Your task to perform on an android device: Clear all items from cart on amazon.com. Image 0: 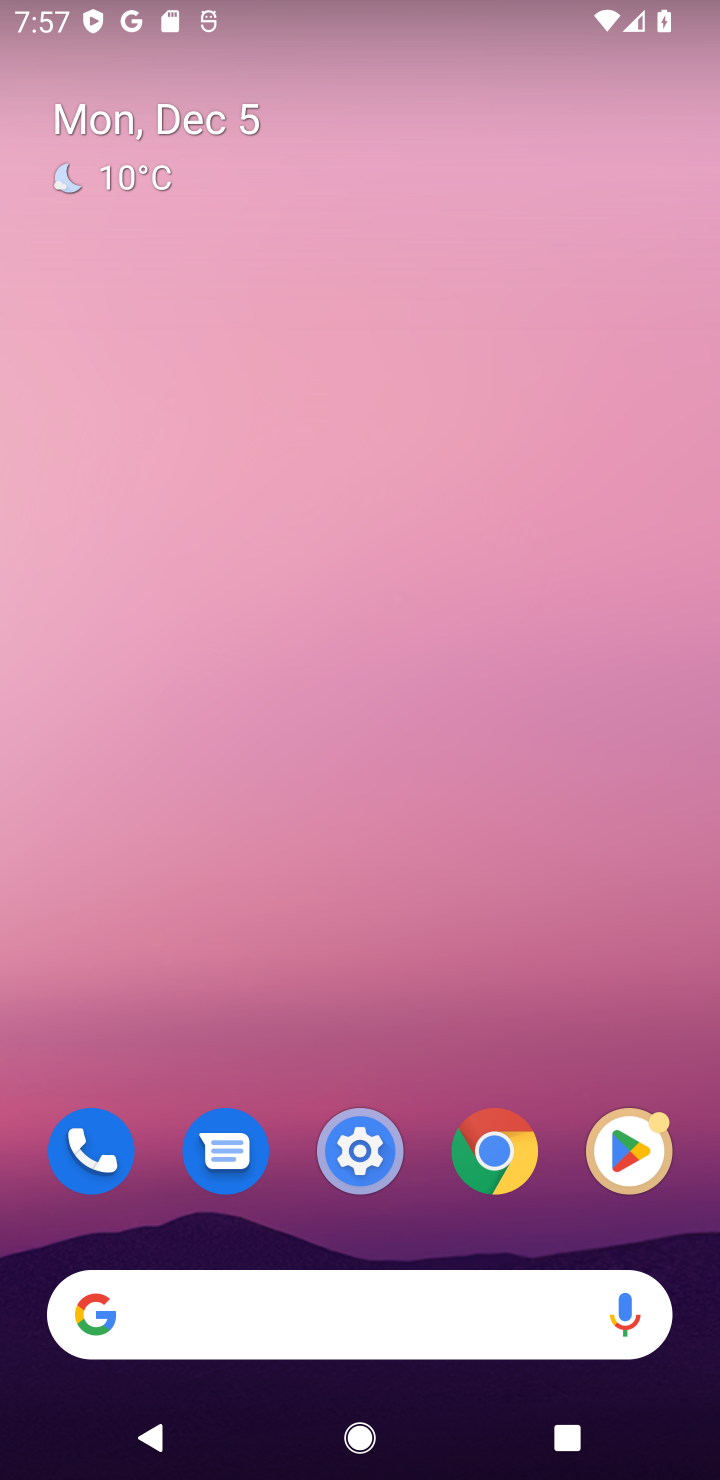
Step 0: click (413, 1303)
Your task to perform on an android device: Clear all items from cart on amazon.com. Image 1: 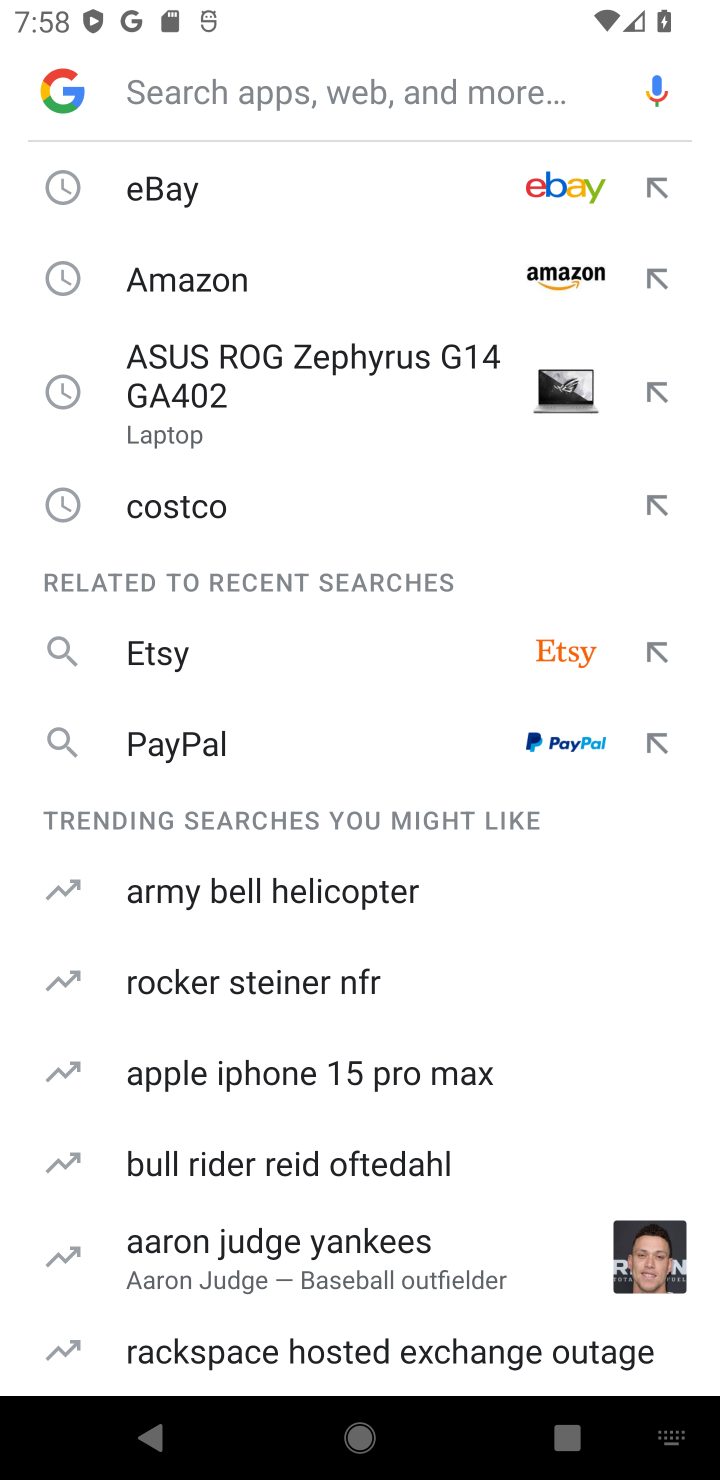
Step 1: type "amazon"
Your task to perform on an android device: Clear all items from cart on amazon.com. Image 2: 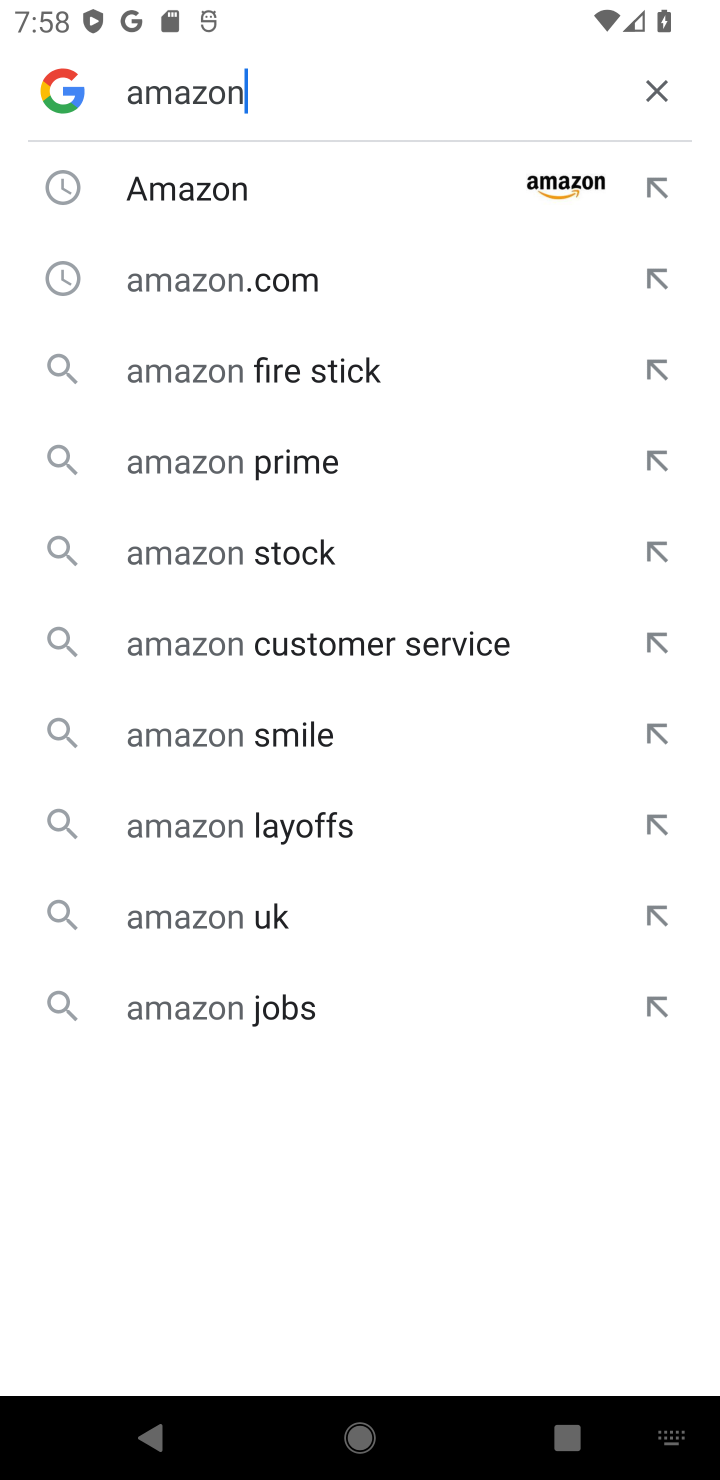
Step 2: click (193, 199)
Your task to perform on an android device: Clear all items from cart on amazon.com. Image 3: 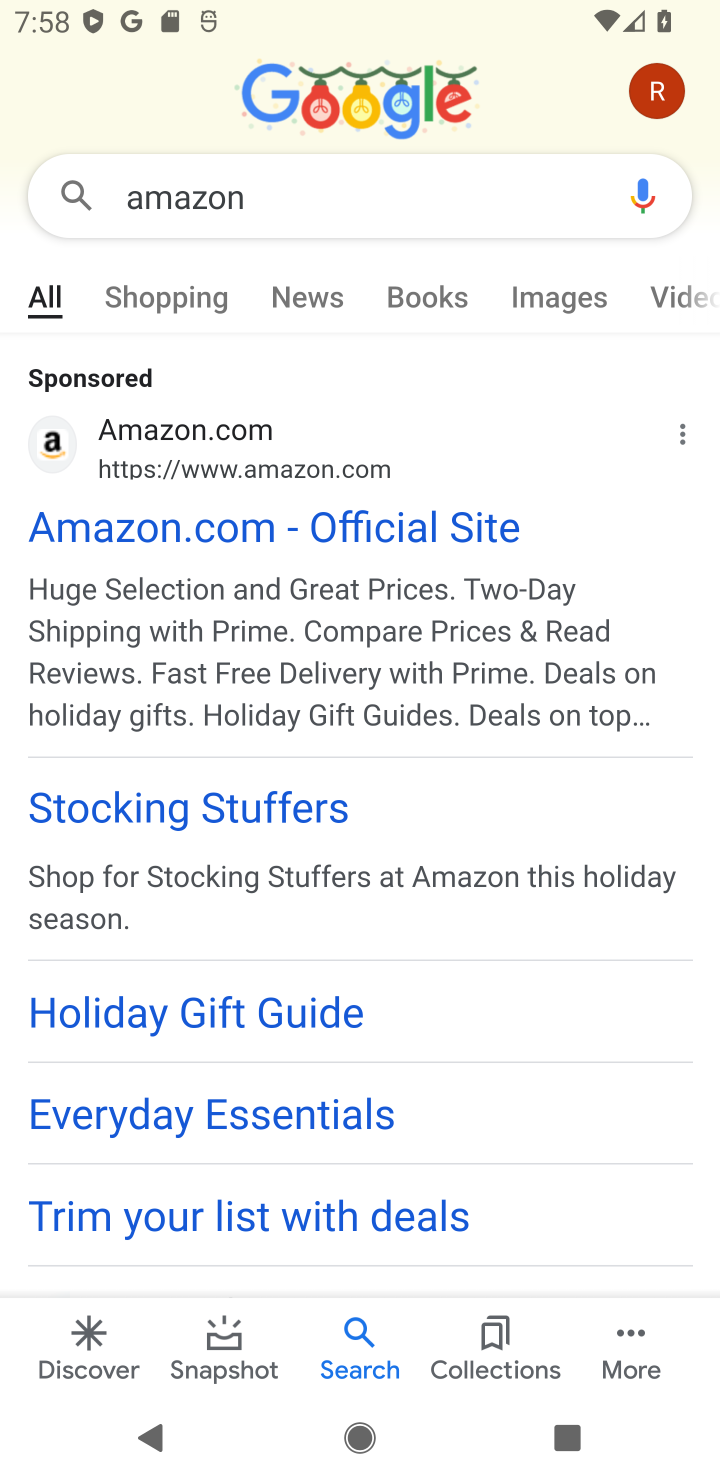
Step 3: click (105, 531)
Your task to perform on an android device: Clear all items from cart on amazon.com. Image 4: 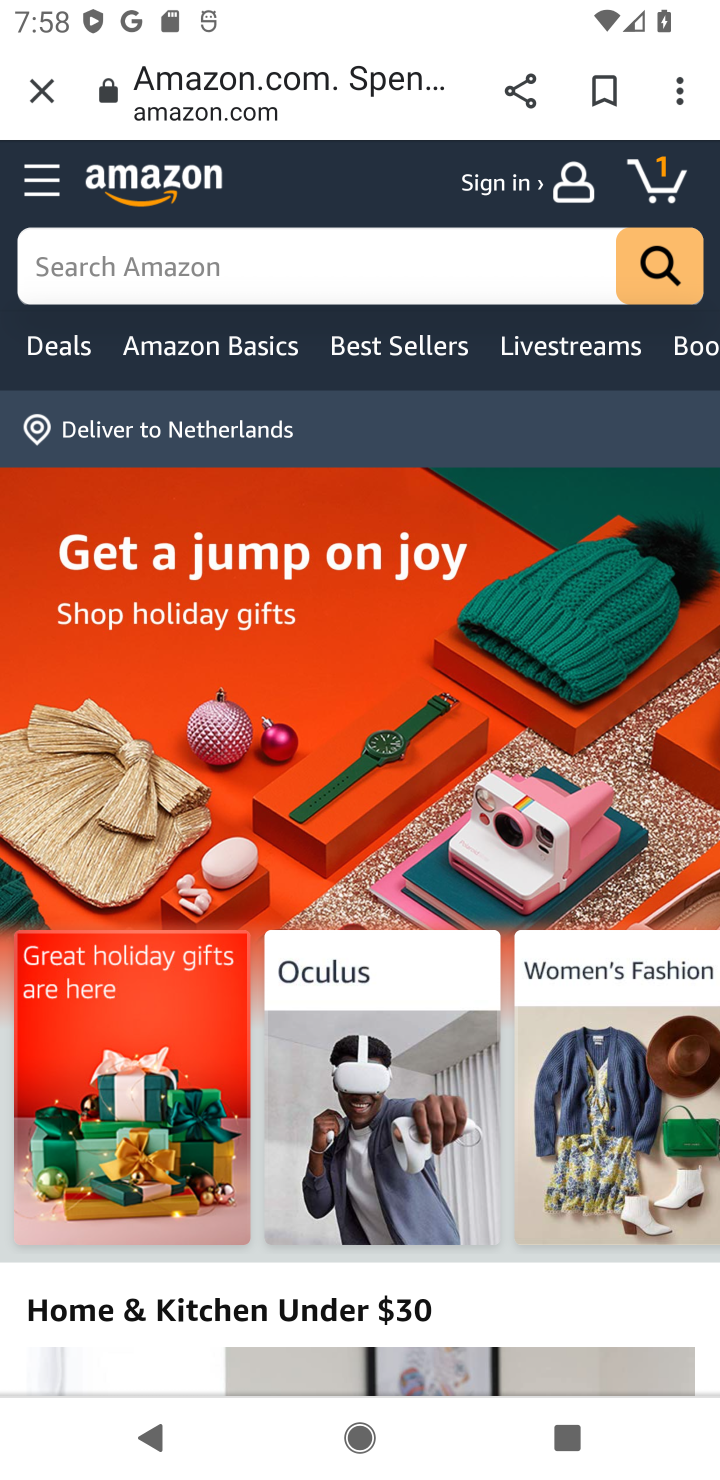
Step 4: click (115, 289)
Your task to perform on an android device: Clear all items from cart on amazon.com. Image 5: 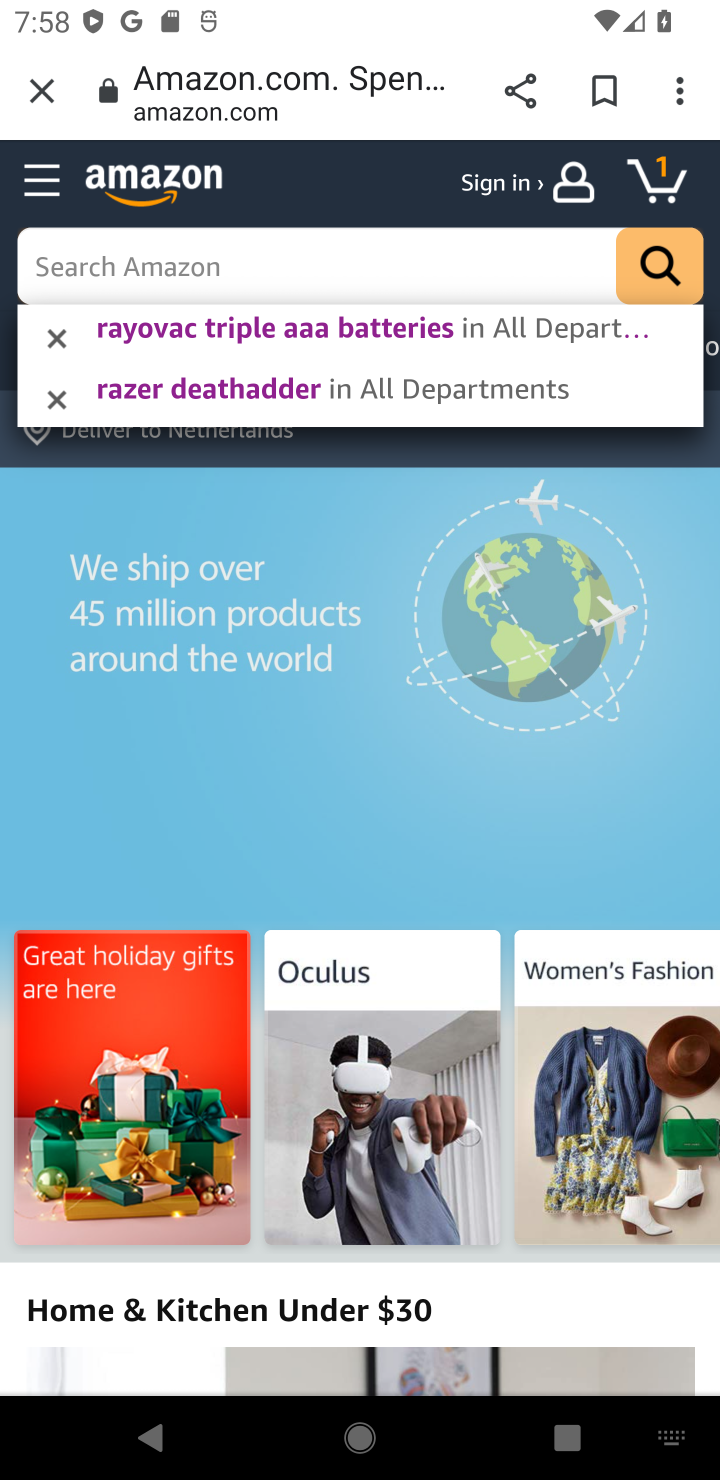
Step 5: click (672, 170)
Your task to perform on an android device: Clear all items from cart on amazon.com. Image 6: 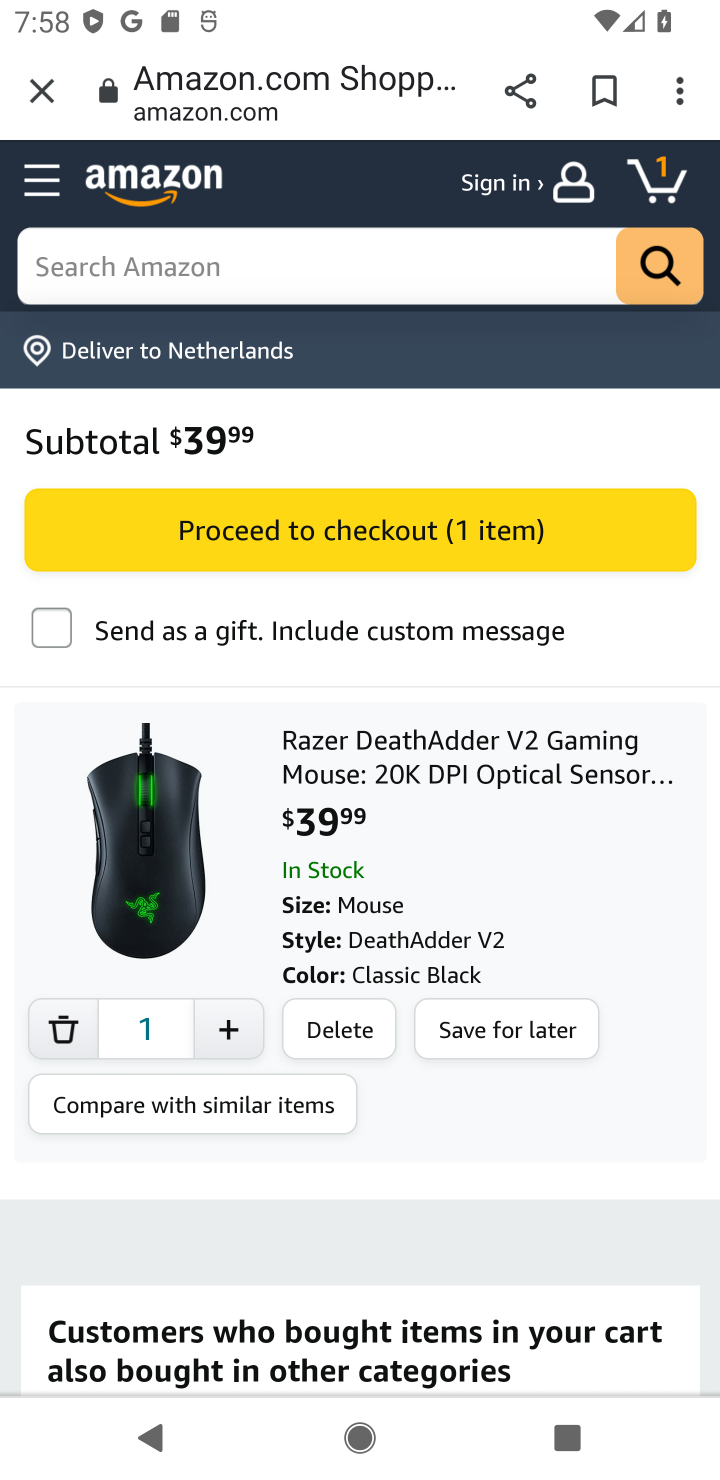
Step 6: click (346, 1043)
Your task to perform on an android device: Clear all items from cart on amazon.com. Image 7: 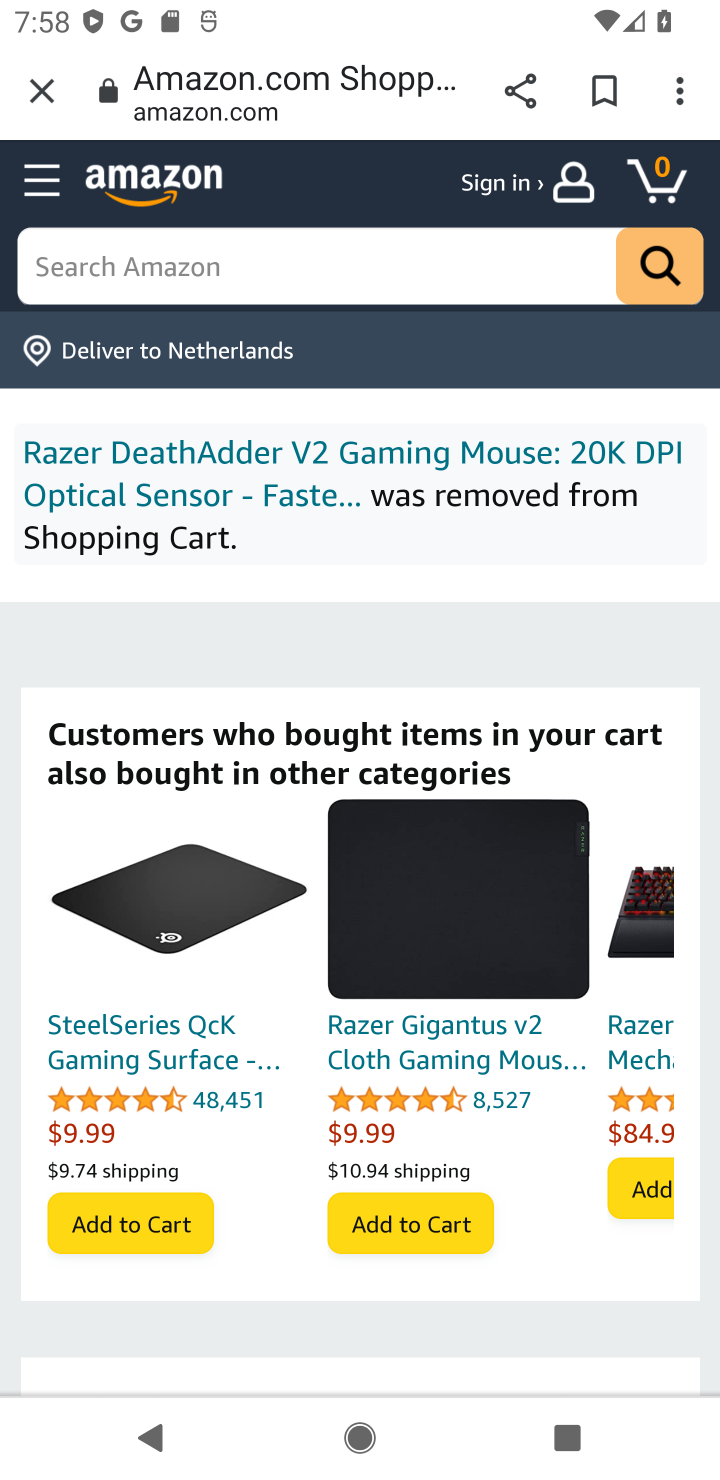
Step 7: task complete